Your task to perform on an android device: open the mobile data screen to see how much data has been used Image 0: 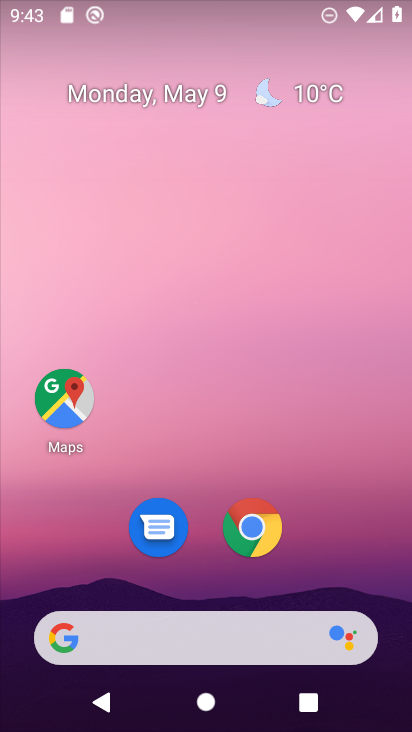
Step 0: drag from (203, 586) to (317, 1)
Your task to perform on an android device: open the mobile data screen to see how much data has been used Image 1: 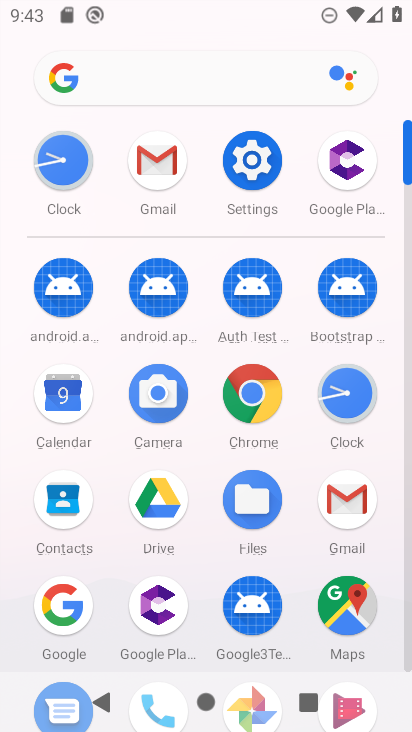
Step 1: click (251, 168)
Your task to perform on an android device: open the mobile data screen to see how much data has been used Image 2: 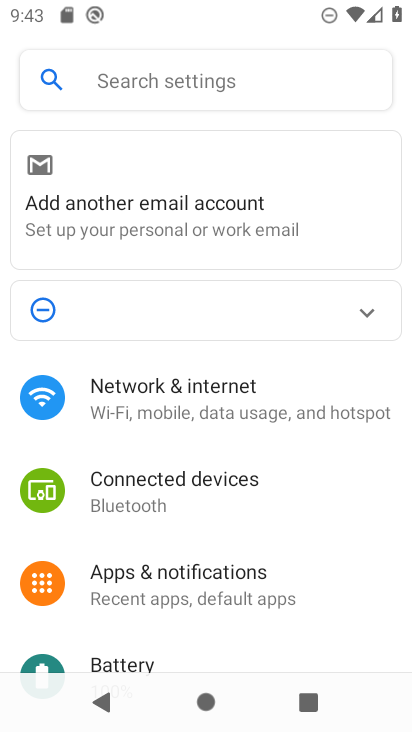
Step 2: click (209, 415)
Your task to perform on an android device: open the mobile data screen to see how much data has been used Image 3: 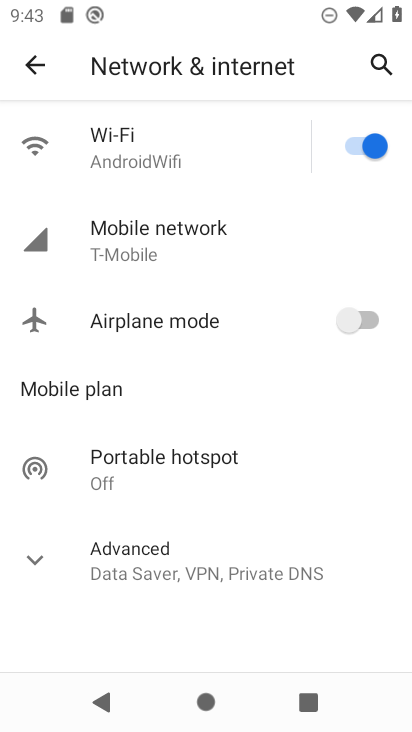
Step 3: click (194, 249)
Your task to perform on an android device: open the mobile data screen to see how much data has been used Image 4: 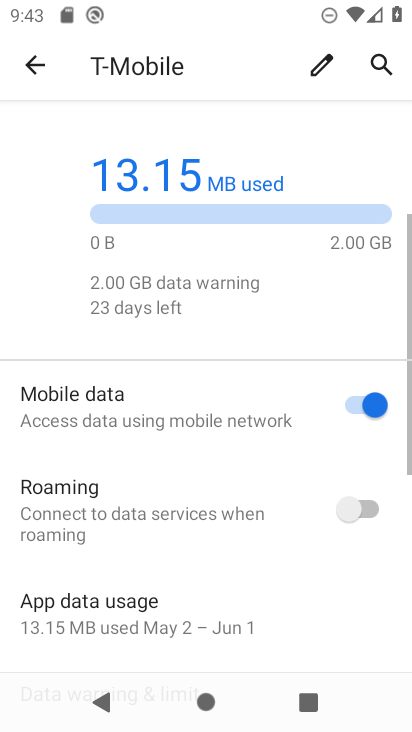
Step 4: drag from (193, 505) to (250, 131)
Your task to perform on an android device: open the mobile data screen to see how much data has been used Image 5: 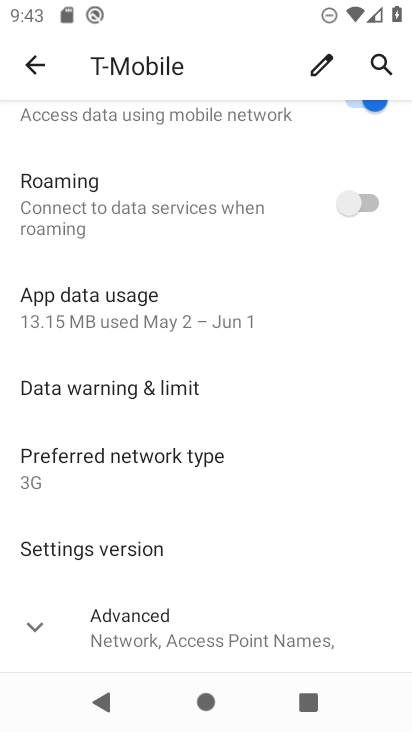
Step 5: click (130, 317)
Your task to perform on an android device: open the mobile data screen to see how much data has been used Image 6: 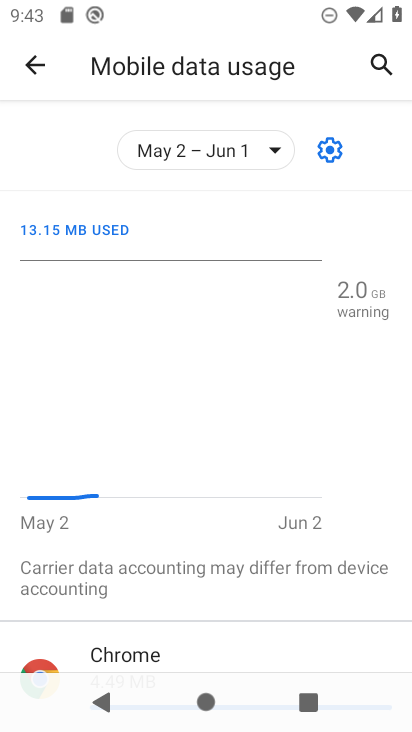
Step 6: task complete